Your task to perform on an android device: Check the weather Image 0: 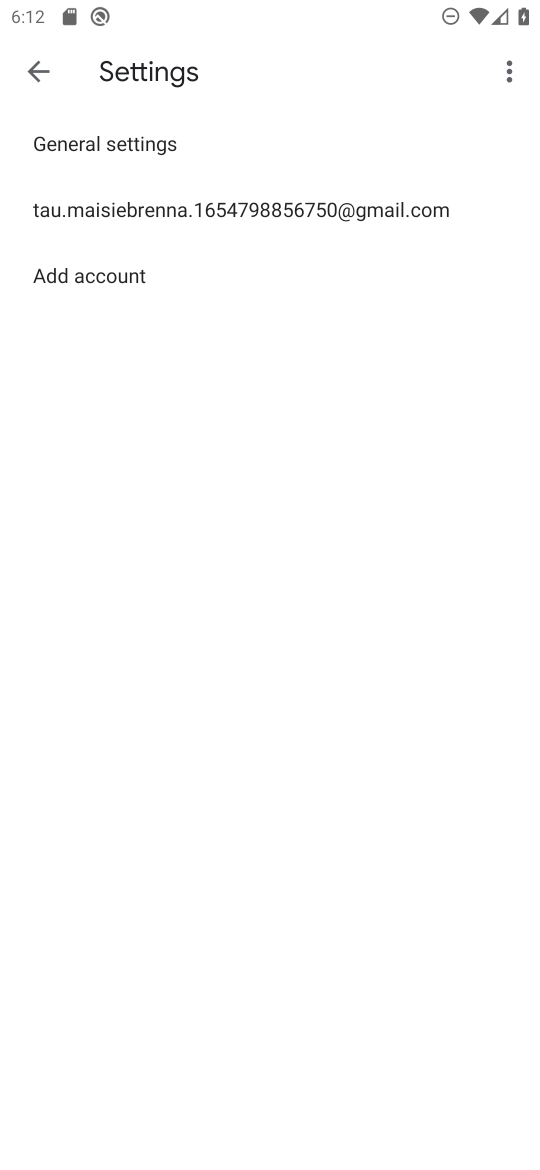
Step 0: press home button
Your task to perform on an android device: Check the weather Image 1: 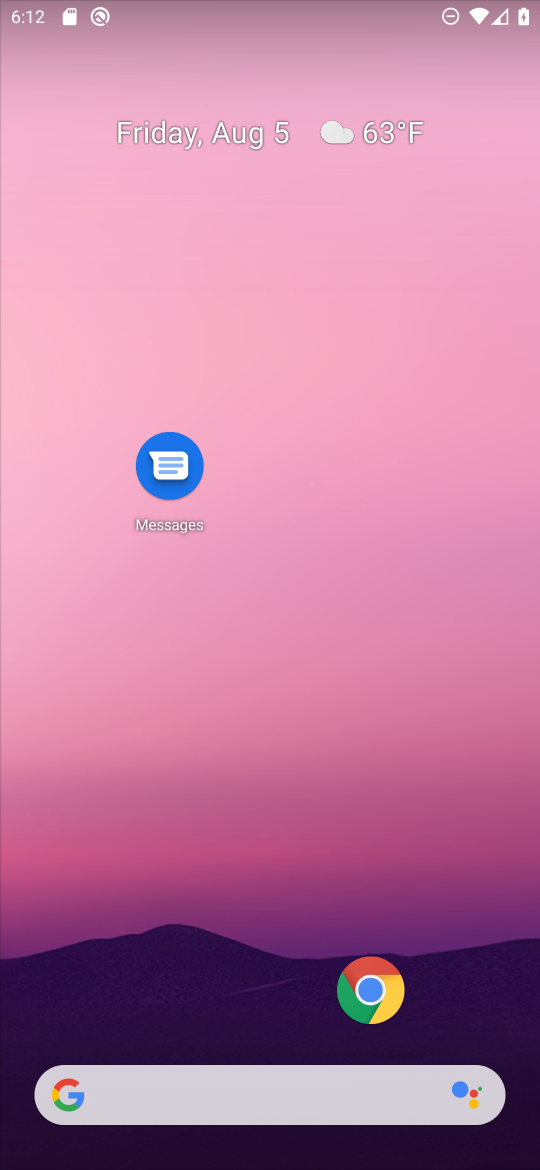
Step 1: drag from (255, 958) to (268, 625)
Your task to perform on an android device: Check the weather Image 2: 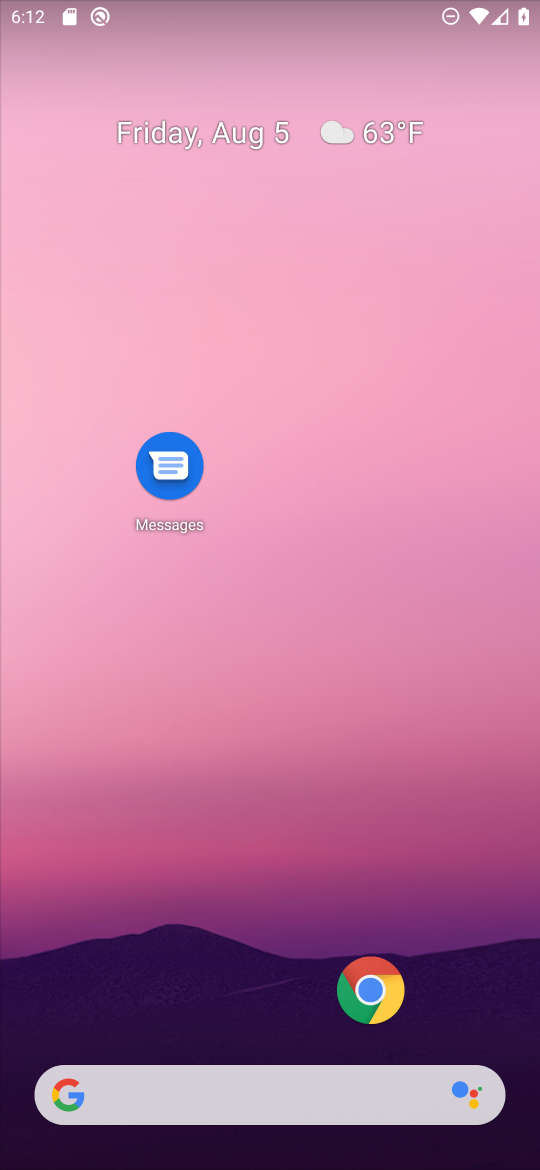
Step 2: drag from (168, 847) to (168, 432)
Your task to perform on an android device: Check the weather Image 3: 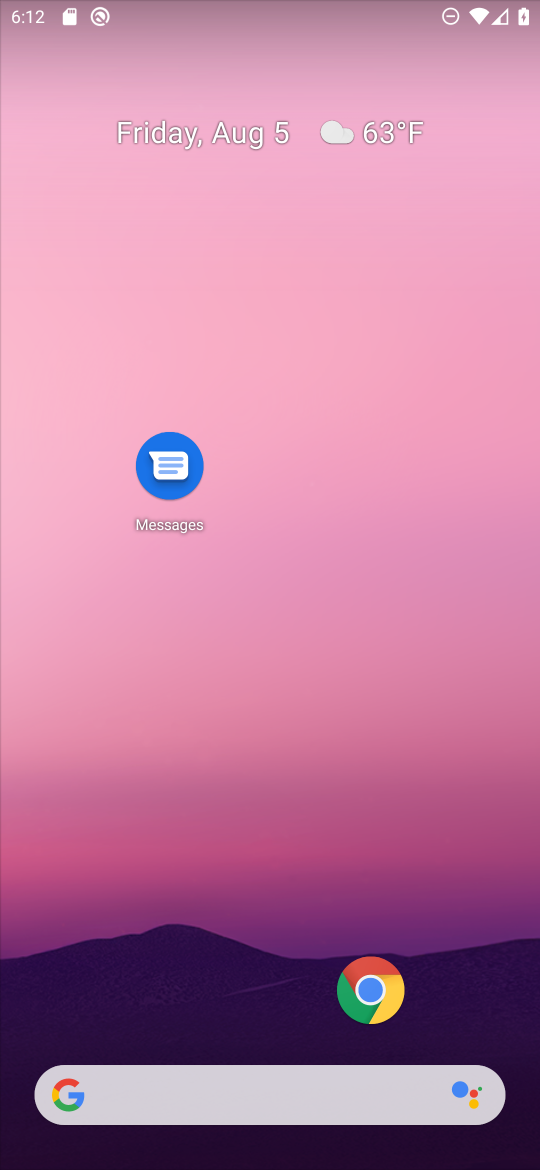
Step 3: drag from (250, 1055) to (215, 582)
Your task to perform on an android device: Check the weather Image 4: 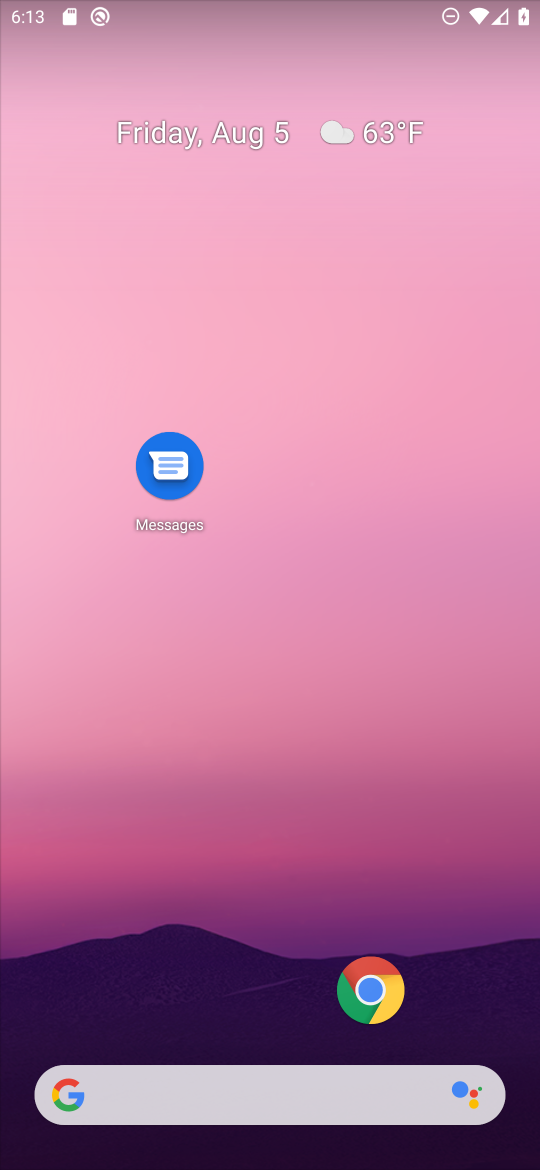
Step 4: drag from (291, 1070) to (217, 317)
Your task to perform on an android device: Check the weather Image 5: 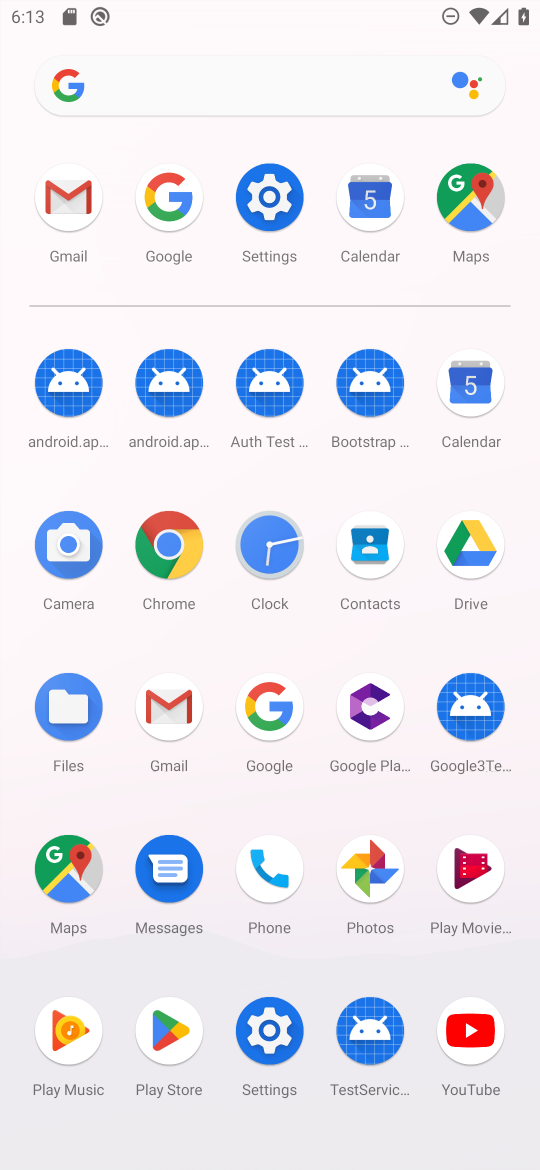
Step 5: click (265, 716)
Your task to perform on an android device: Check the weather Image 6: 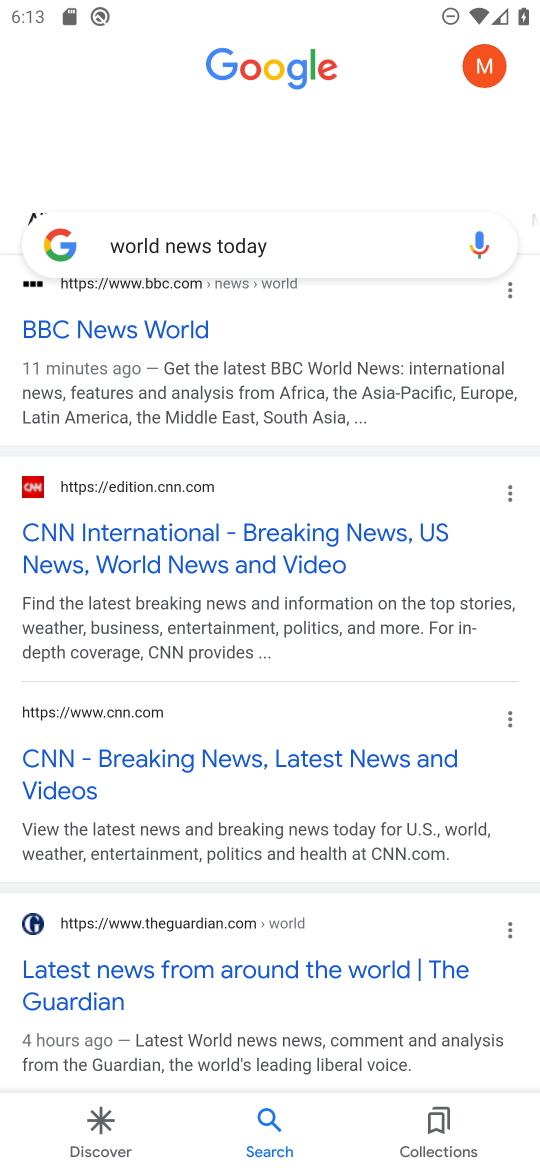
Step 6: click (289, 249)
Your task to perform on an android device: Check the weather Image 7: 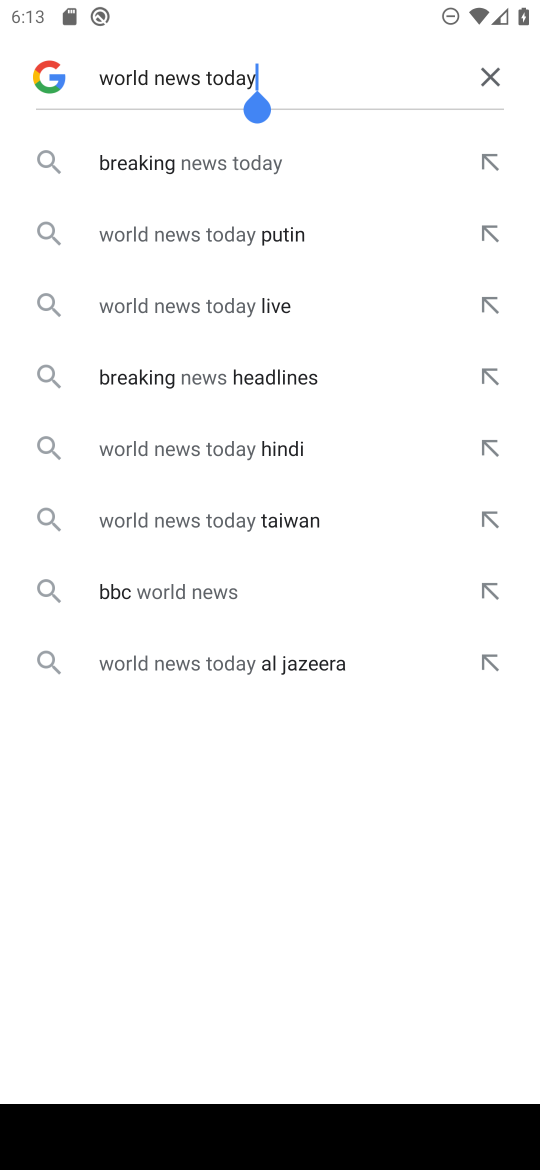
Step 7: click (485, 67)
Your task to perform on an android device: Check the weather Image 8: 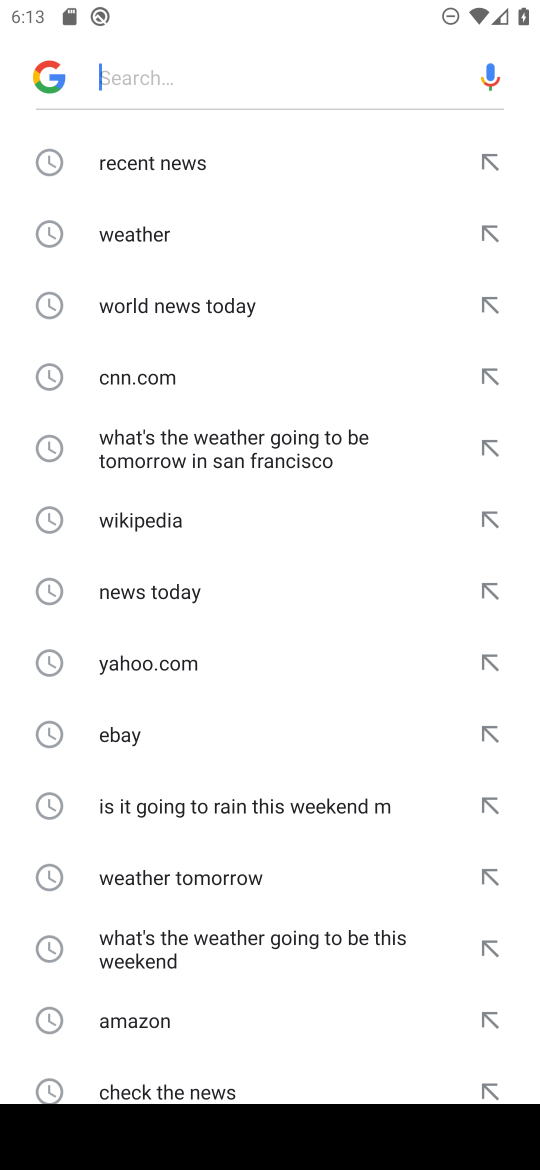
Step 8: click (162, 244)
Your task to perform on an android device: Check the weather Image 9: 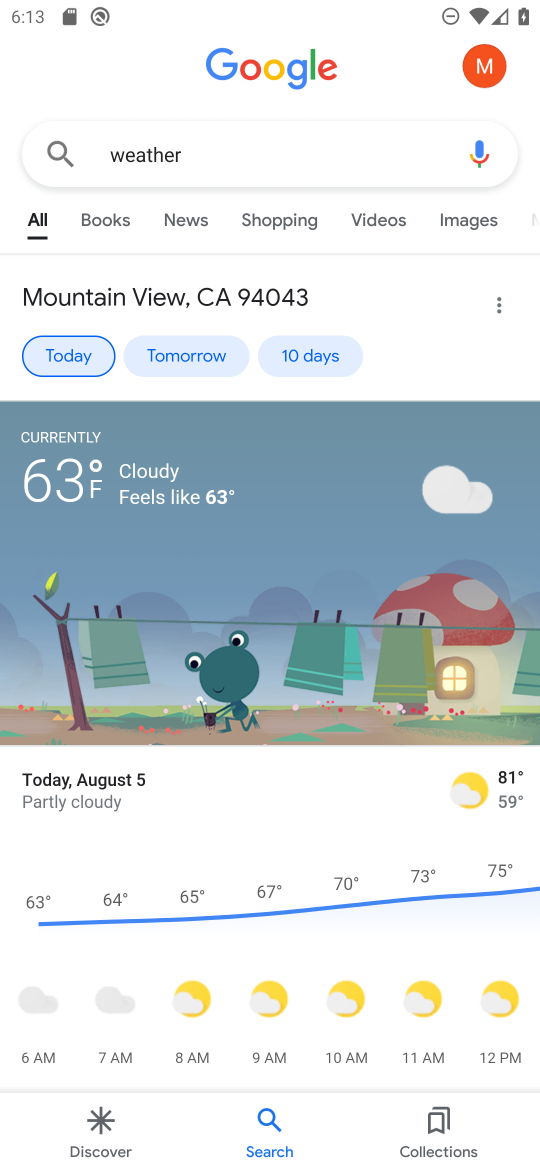
Step 9: task complete